Your task to perform on an android device: Open battery settings Image 0: 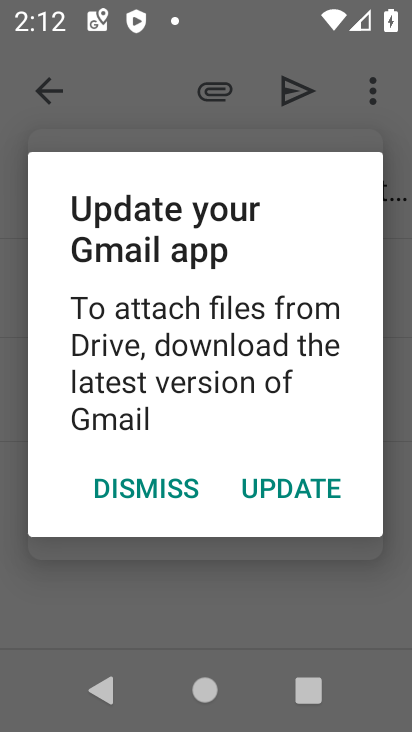
Step 0: press home button
Your task to perform on an android device: Open battery settings Image 1: 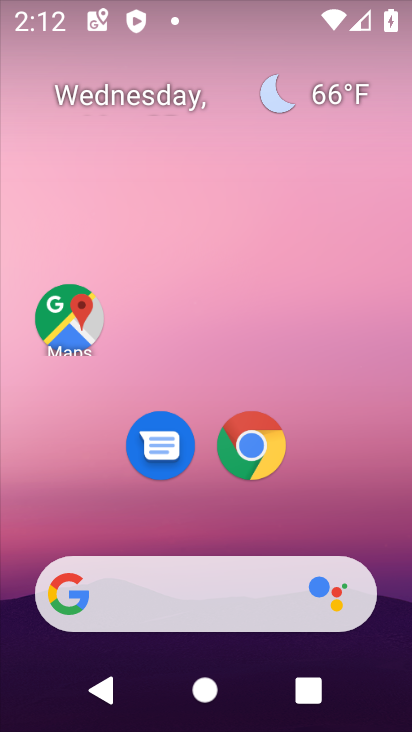
Step 1: drag from (34, 541) to (288, 87)
Your task to perform on an android device: Open battery settings Image 2: 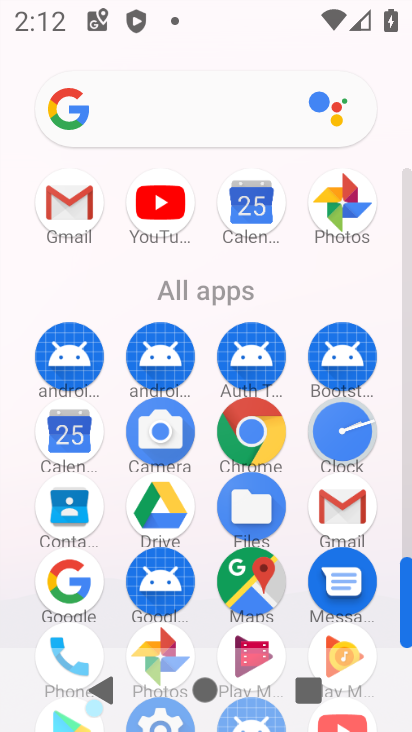
Step 2: drag from (34, 534) to (211, 164)
Your task to perform on an android device: Open battery settings Image 3: 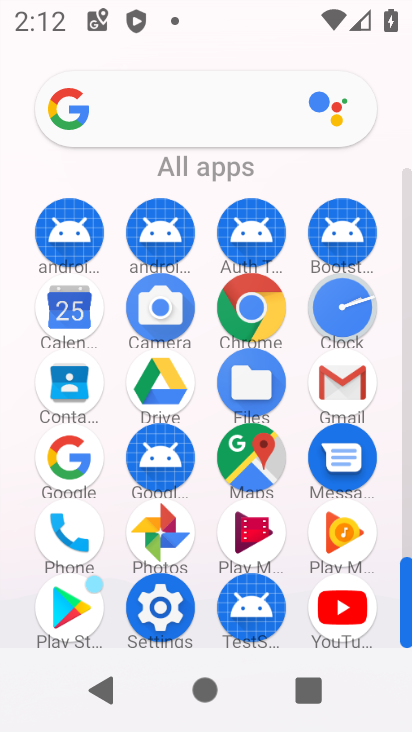
Step 3: click (156, 615)
Your task to perform on an android device: Open battery settings Image 4: 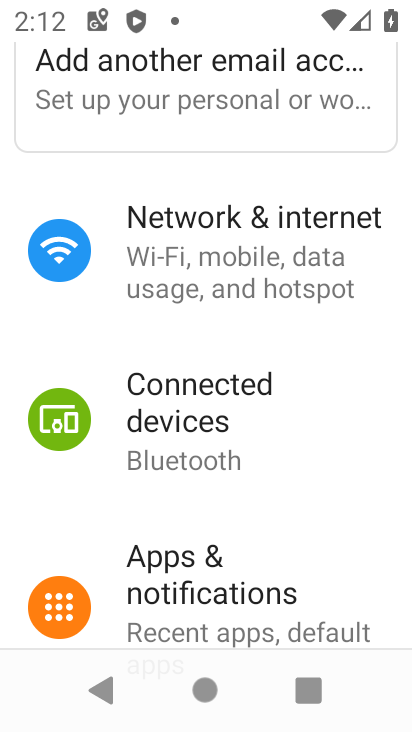
Step 4: drag from (2, 607) to (188, 163)
Your task to perform on an android device: Open battery settings Image 5: 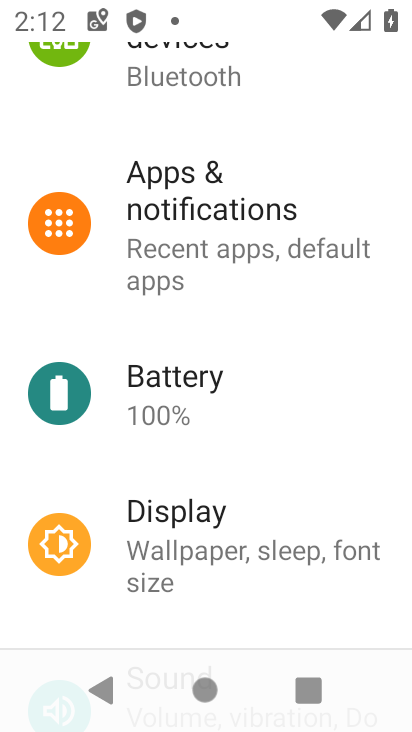
Step 5: click (180, 378)
Your task to perform on an android device: Open battery settings Image 6: 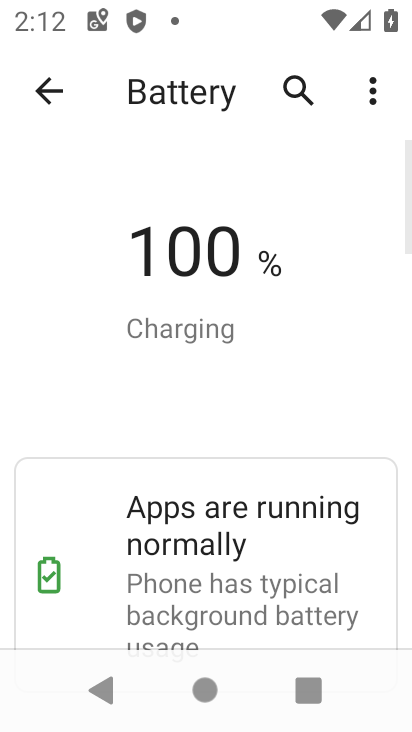
Step 6: task complete